Your task to perform on an android device: Open internet settings Image 0: 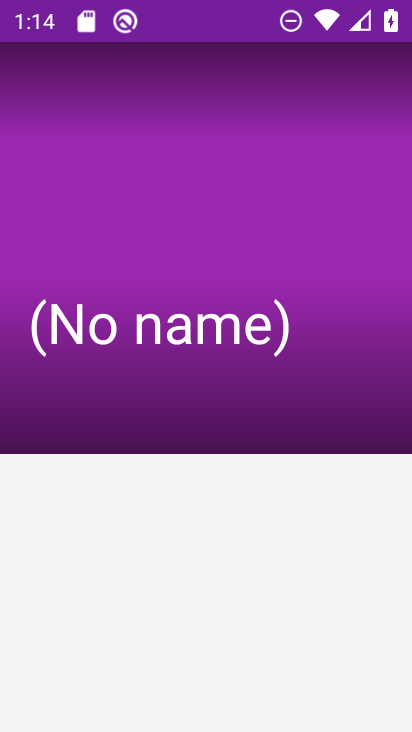
Step 0: drag from (164, 590) to (234, 206)
Your task to perform on an android device: Open internet settings Image 1: 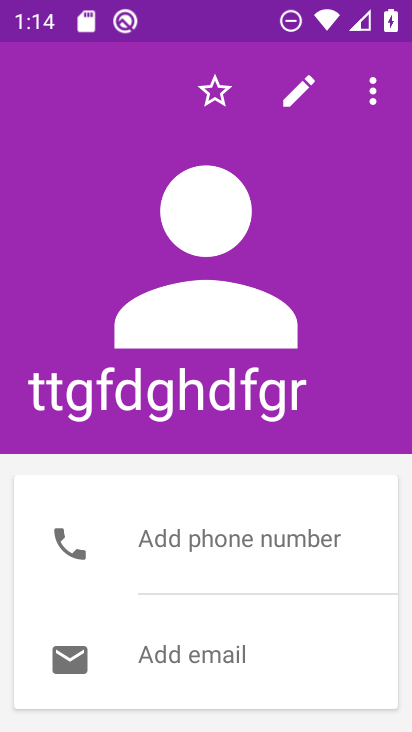
Step 1: press home button
Your task to perform on an android device: Open internet settings Image 2: 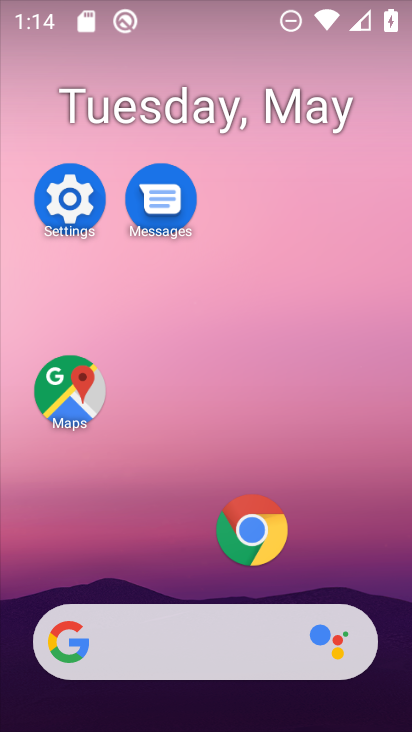
Step 2: drag from (139, 530) to (231, 167)
Your task to perform on an android device: Open internet settings Image 3: 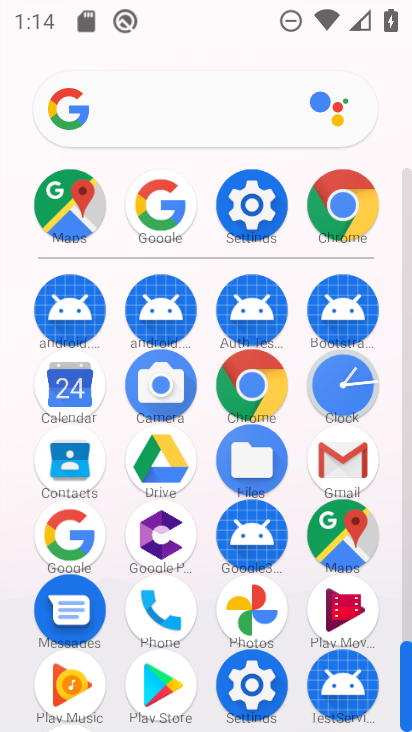
Step 3: click (260, 673)
Your task to perform on an android device: Open internet settings Image 4: 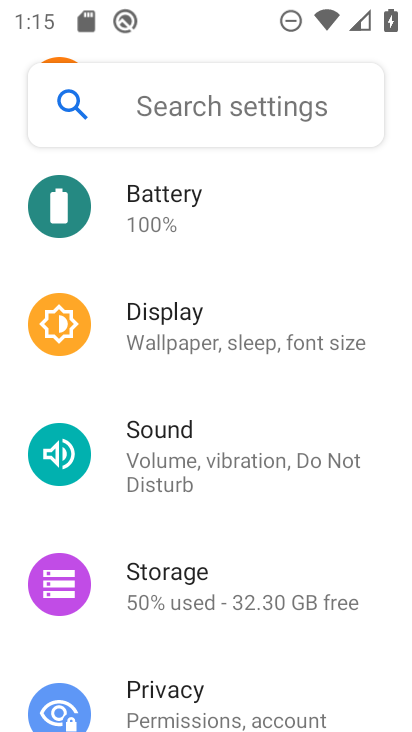
Step 4: drag from (232, 556) to (251, 727)
Your task to perform on an android device: Open internet settings Image 5: 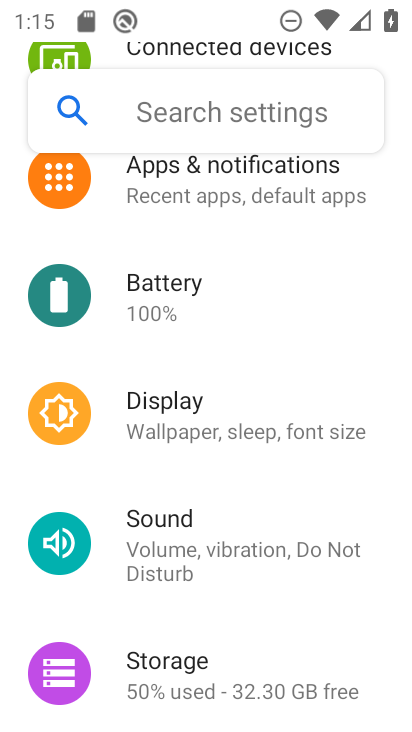
Step 5: drag from (218, 219) to (211, 702)
Your task to perform on an android device: Open internet settings Image 6: 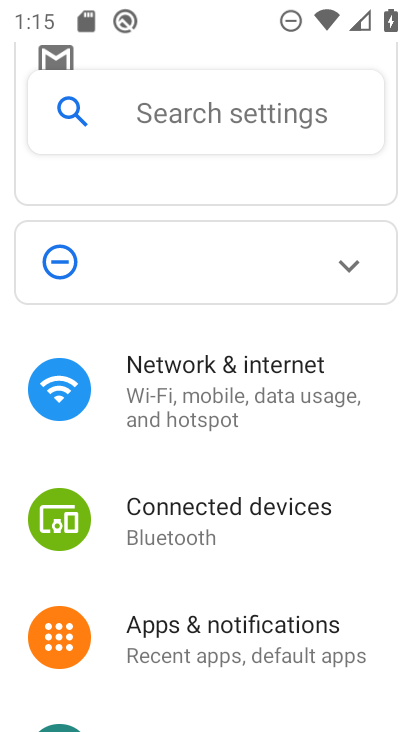
Step 6: click (211, 406)
Your task to perform on an android device: Open internet settings Image 7: 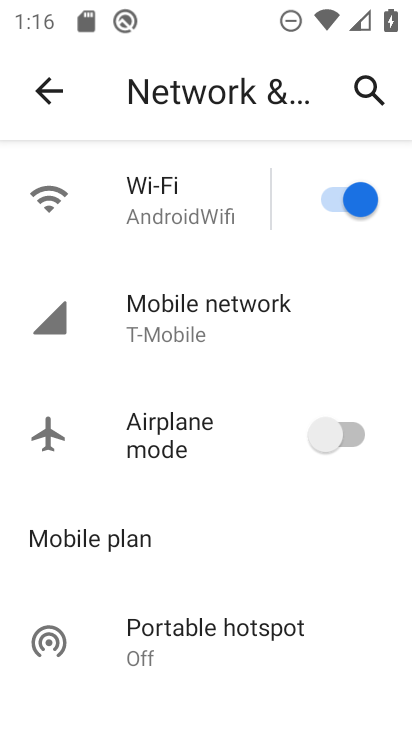
Step 7: task complete